Your task to perform on an android device: Open Reddit.com Image 0: 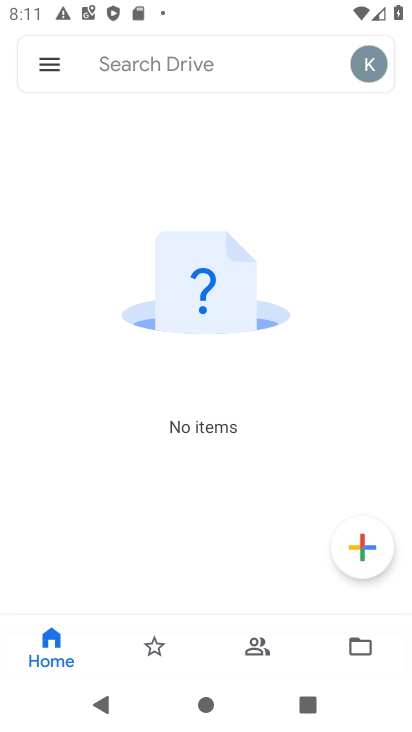
Step 0: press home button
Your task to perform on an android device: Open Reddit.com Image 1: 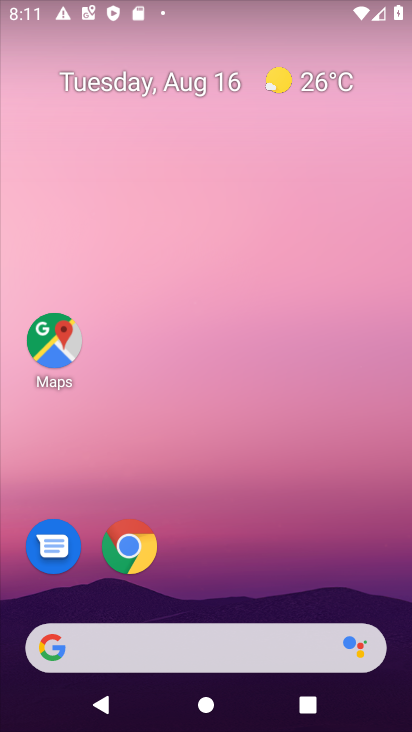
Step 1: click (163, 645)
Your task to perform on an android device: Open Reddit.com Image 2: 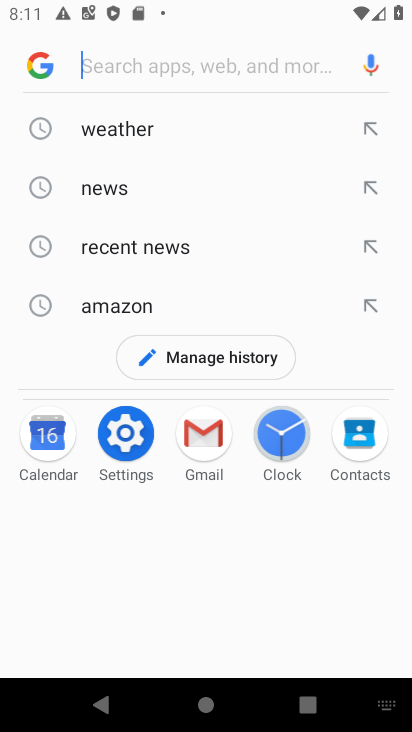
Step 2: type "reddit.com"
Your task to perform on an android device: Open Reddit.com Image 3: 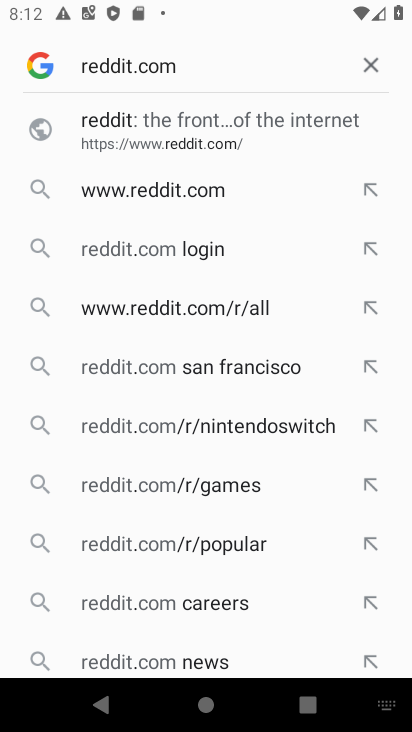
Step 3: click (242, 134)
Your task to perform on an android device: Open Reddit.com Image 4: 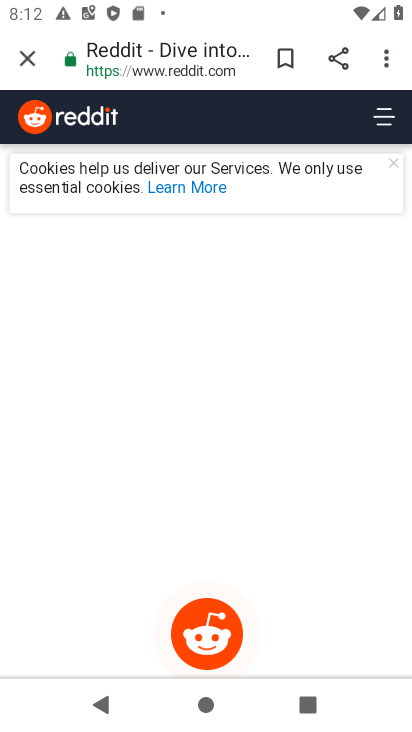
Step 4: click (389, 161)
Your task to perform on an android device: Open Reddit.com Image 5: 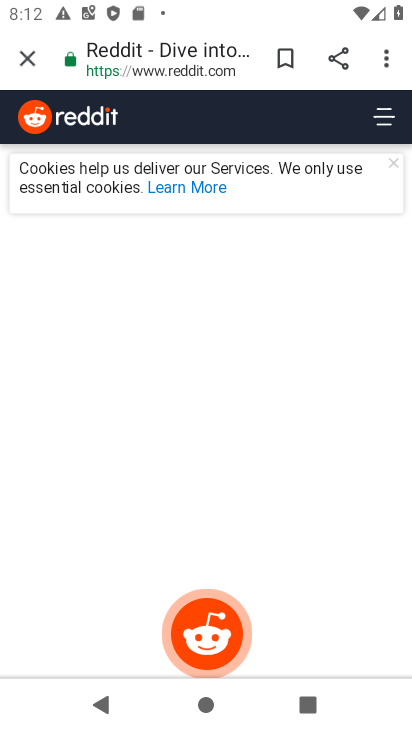
Step 5: click (393, 159)
Your task to perform on an android device: Open Reddit.com Image 6: 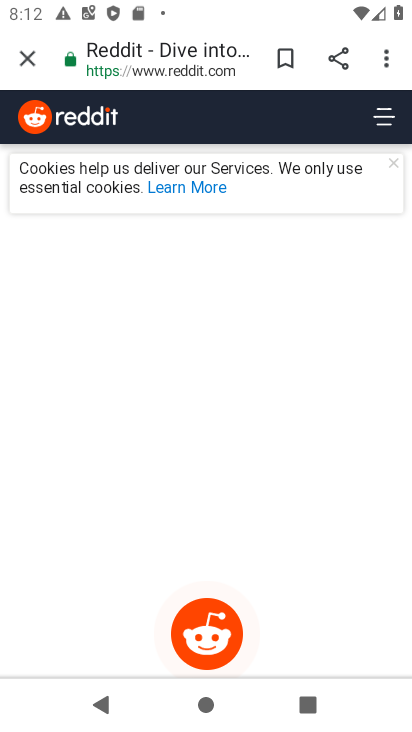
Step 6: task complete